Your task to perform on an android device: Open Google Maps and go to "Timeline" Image 0: 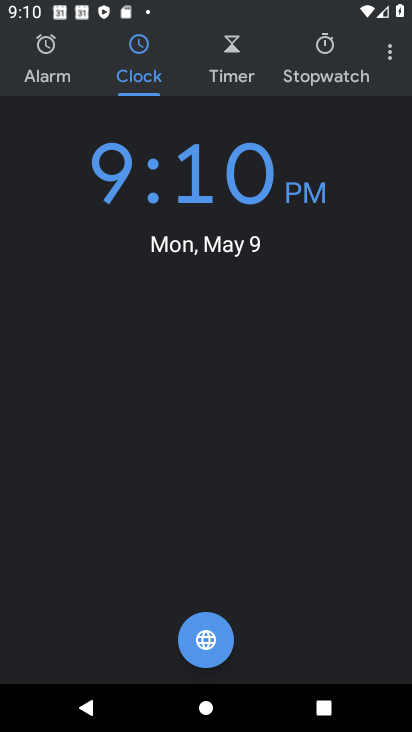
Step 0: press home button
Your task to perform on an android device: Open Google Maps and go to "Timeline" Image 1: 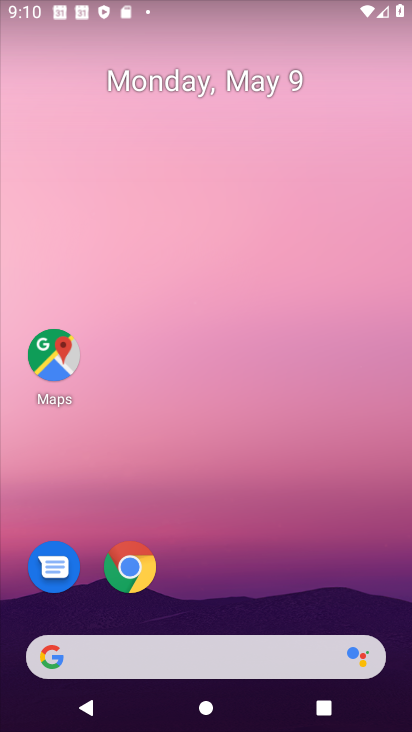
Step 1: click (61, 362)
Your task to perform on an android device: Open Google Maps and go to "Timeline" Image 2: 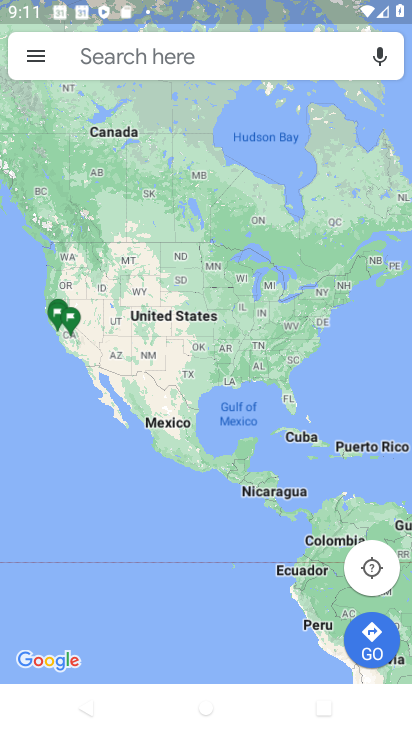
Step 2: click (33, 50)
Your task to perform on an android device: Open Google Maps and go to "Timeline" Image 3: 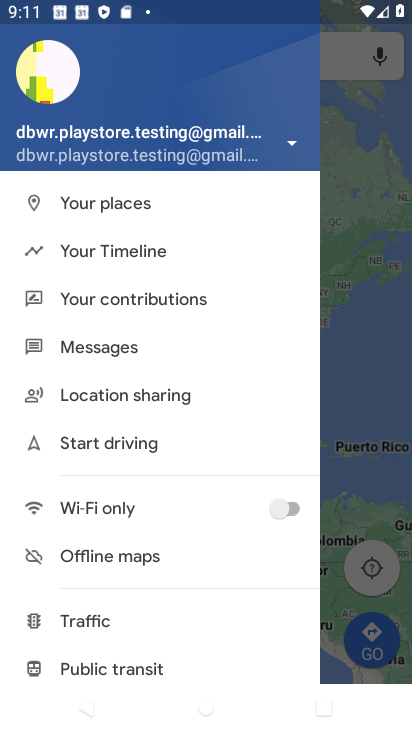
Step 3: click (102, 246)
Your task to perform on an android device: Open Google Maps and go to "Timeline" Image 4: 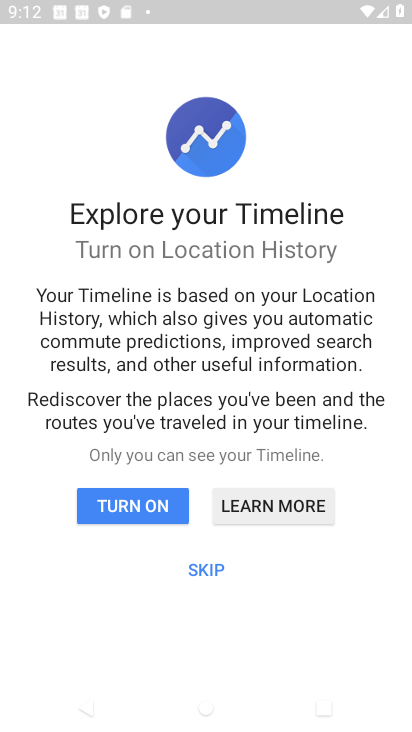
Step 4: click (111, 506)
Your task to perform on an android device: Open Google Maps and go to "Timeline" Image 5: 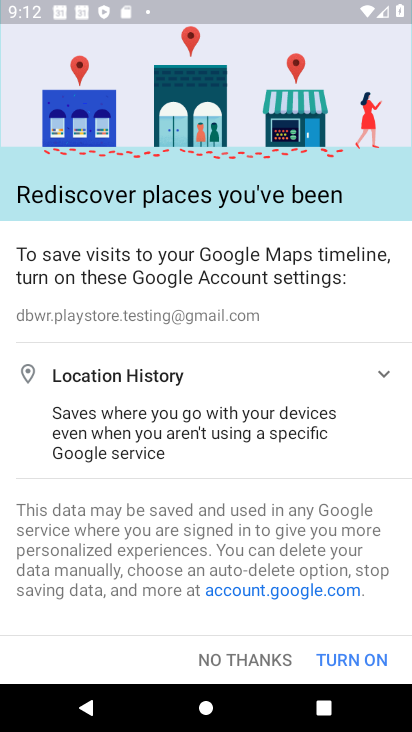
Step 5: click (360, 665)
Your task to perform on an android device: Open Google Maps and go to "Timeline" Image 6: 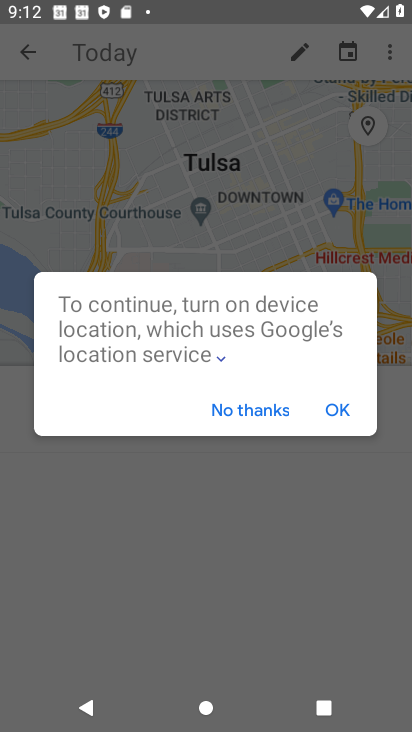
Step 6: click (332, 421)
Your task to perform on an android device: Open Google Maps and go to "Timeline" Image 7: 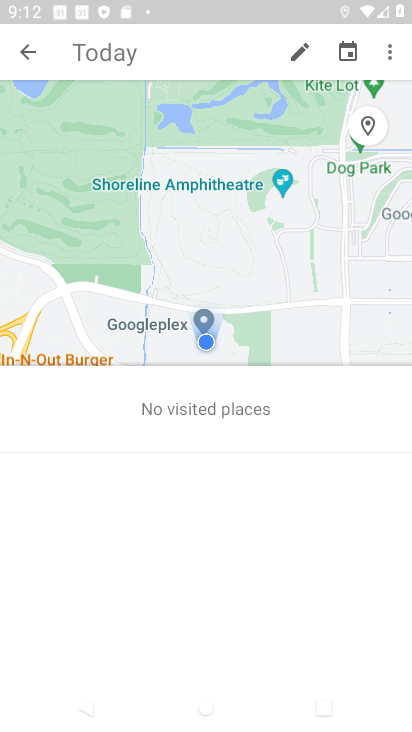
Step 7: task complete